Your task to perform on an android device: set an alarm Image 0: 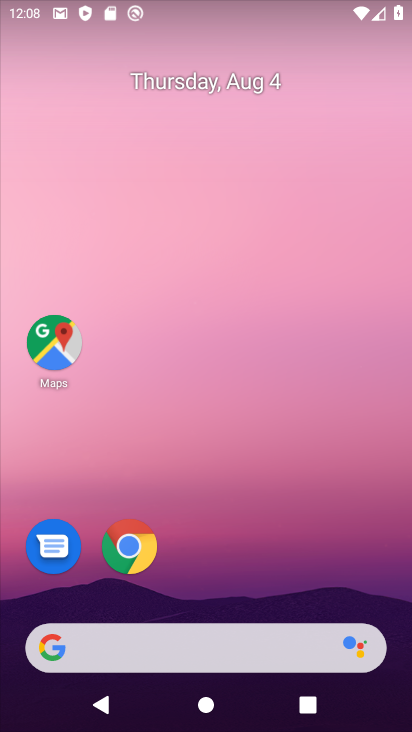
Step 0: drag from (256, 602) to (178, 4)
Your task to perform on an android device: set an alarm Image 1: 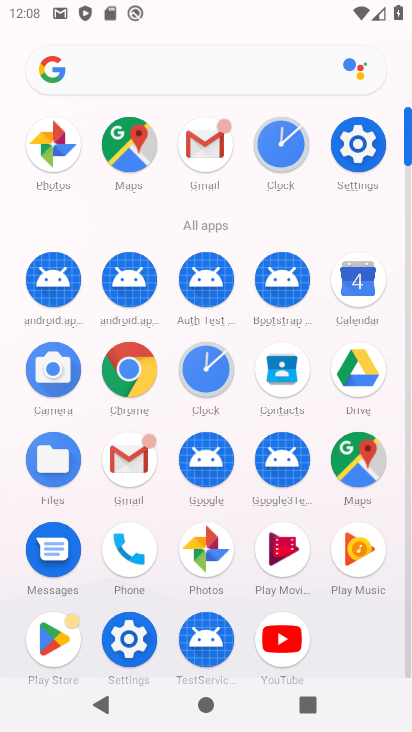
Step 1: click (200, 364)
Your task to perform on an android device: set an alarm Image 2: 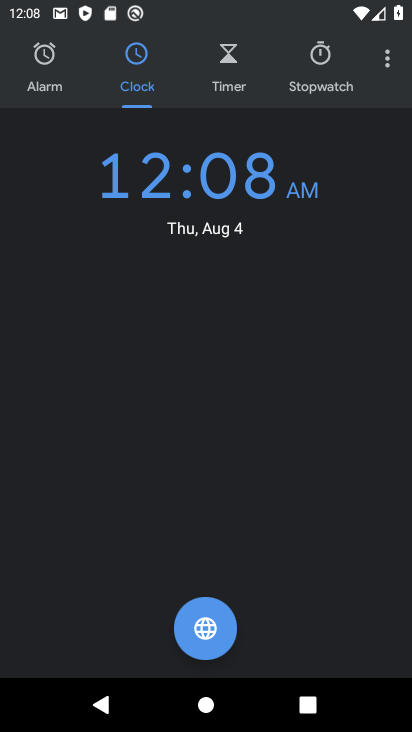
Step 2: click (46, 81)
Your task to perform on an android device: set an alarm Image 3: 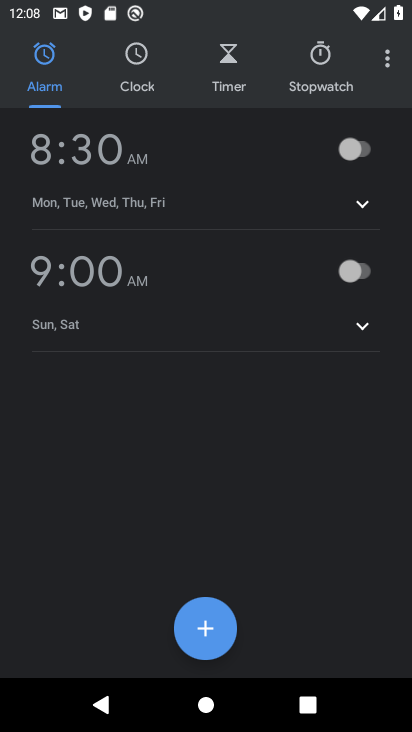
Step 3: click (207, 629)
Your task to perform on an android device: set an alarm Image 4: 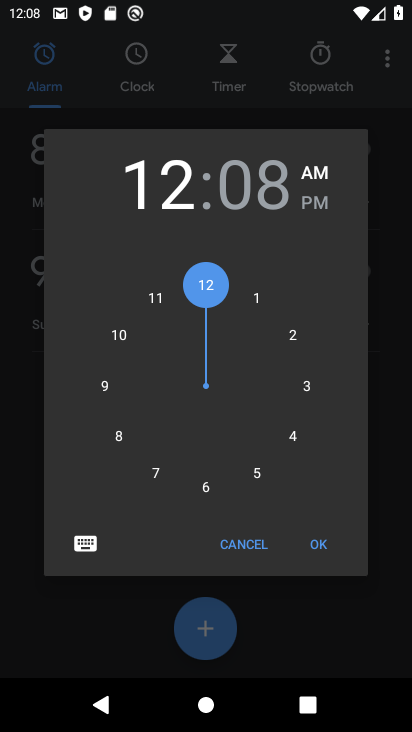
Step 4: click (320, 537)
Your task to perform on an android device: set an alarm Image 5: 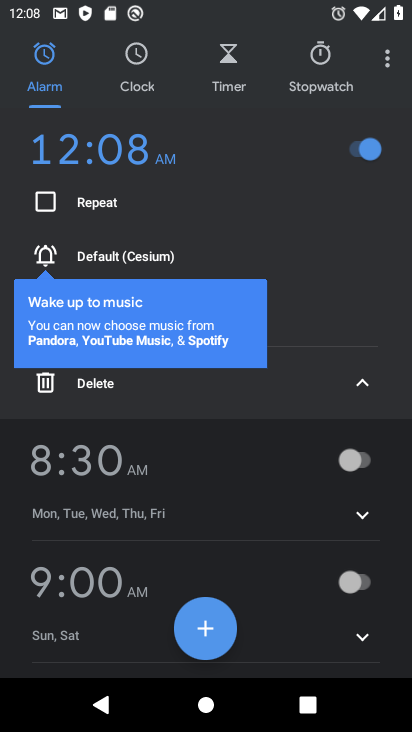
Step 5: task complete